Your task to perform on an android device: What is the news today? Image 0: 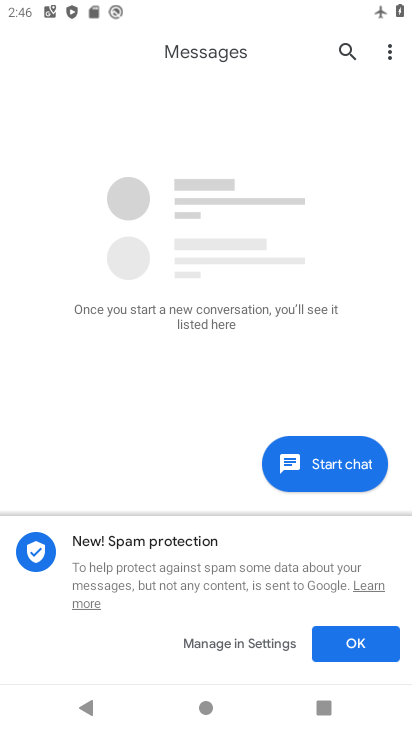
Step 0: press home button
Your task to perform on an android device: What is the news today? Image 1: 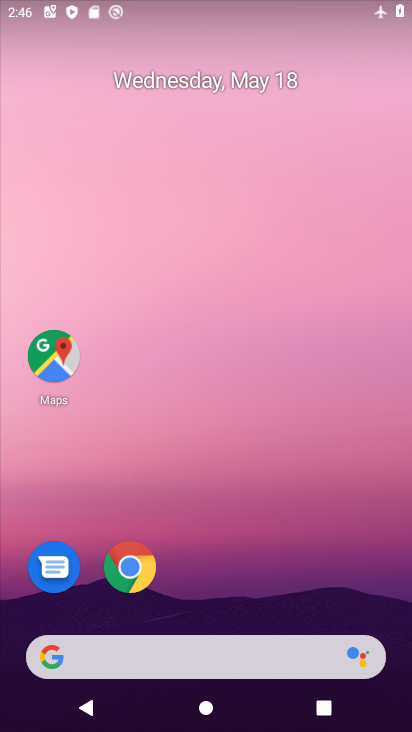
Step 1: drag from (220, 452) to (184, 220)
Your task to perform on an android device: What is the news today? Image 2: 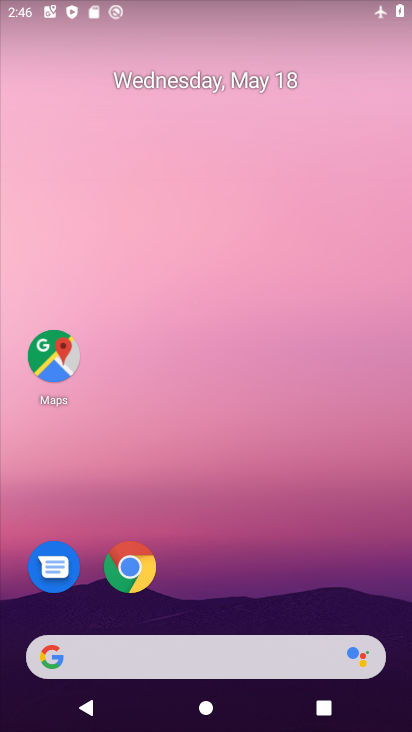
Step 2: click (133, 555)
Your task to perform on an android device: What is the news today? Image 3: 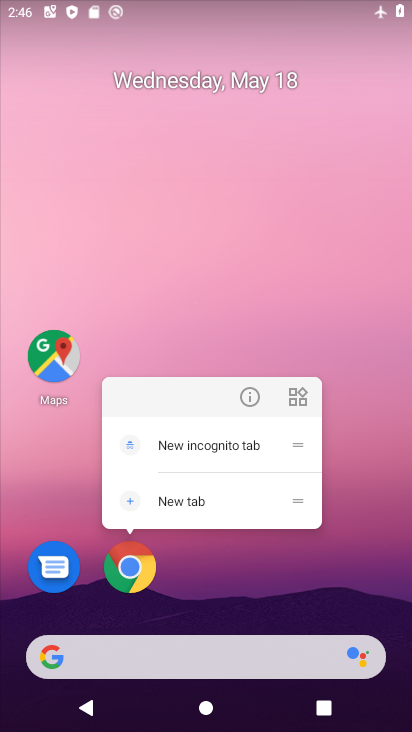
Step 3: click (220, 588)
Your task to perform on an android device: What is the news today? Image 4: 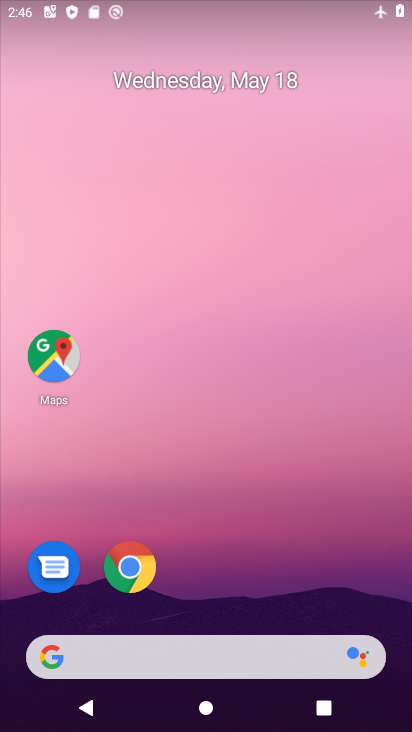
Step 4: click (131, 565)
Your task to perform on an android device: What is the news today? Image 5: 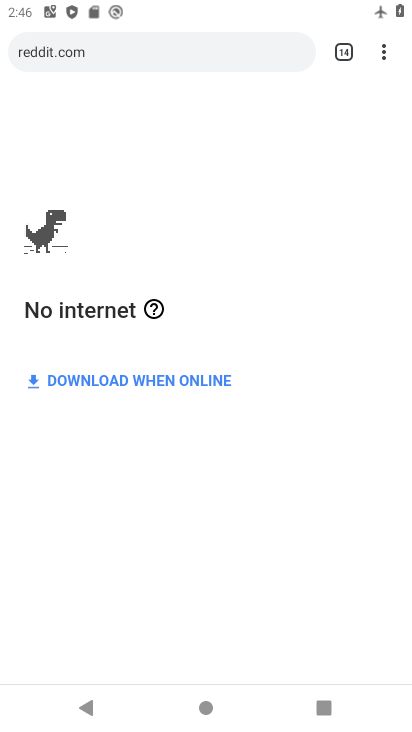
Step 5: click (382, 41)
Your task to perform on an android device: What is the news today? Image 6: 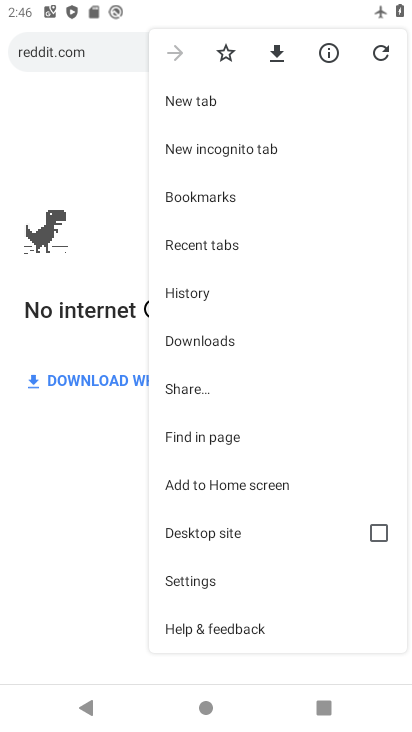
Step 6: click (205, 97)
Your task to perform on an android device: What is the news today? Image 7: 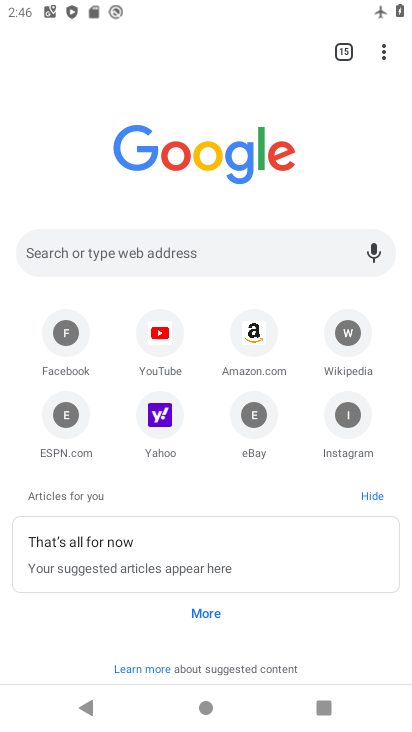
Step 7: click (202, 257)
Your task to perform on an android device: What is the news today? Image 8: 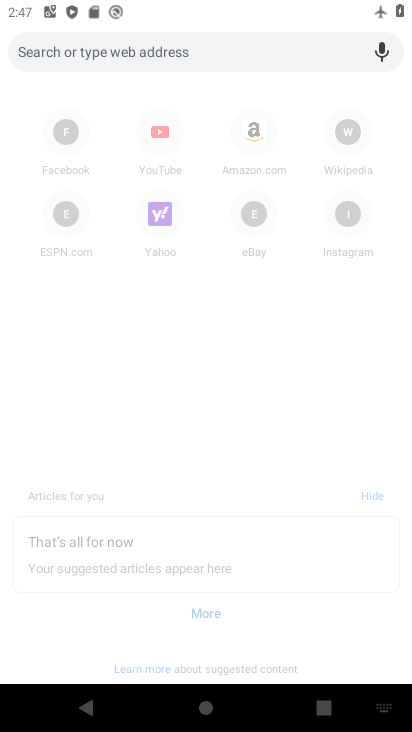
Step 8: type "What is the news today?"
Your task to perform on an android device: What is the news today? Image 9: 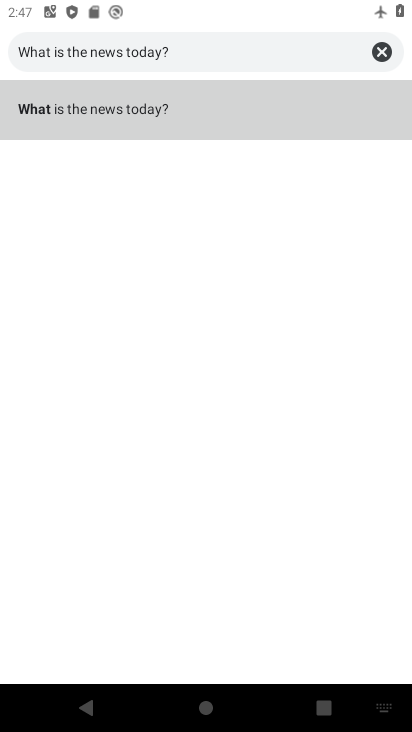
Step 9: click (153, 117)
Your task to perform on an android device: What is the news today? Image 10: 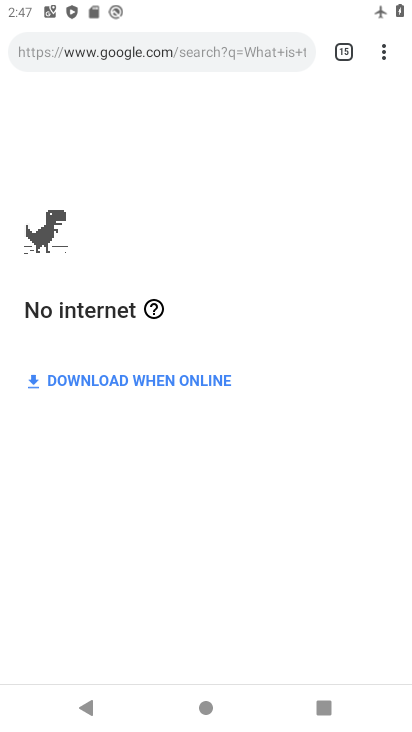
Step 10: task complete